Your task to perform on an android device: Open the calendar app, open the side menu, and click the "Day" option Image 0: 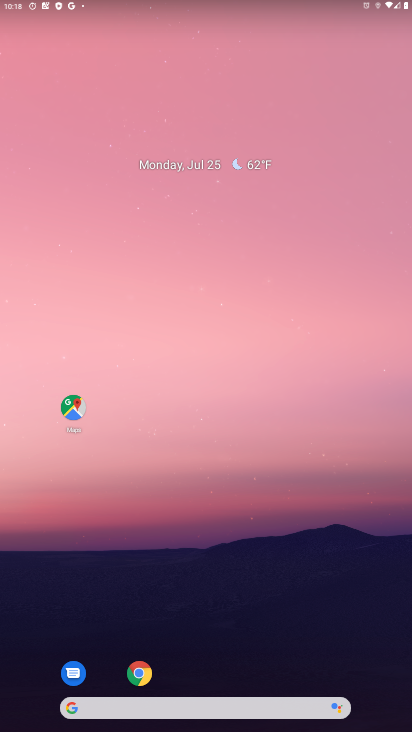
Step 0: drag from (187, 627) to (274, 57)
Your task to perform on an android device: Open the calendar app, open the side menu, and click the "Day" option Image 1: 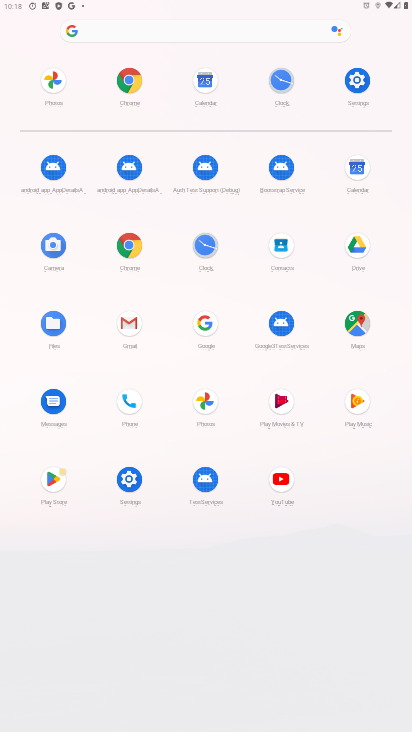
Step 1: click (353, 169)
Your task to perform on an android device: Open the calendar app, open the side menu, and click the "Day" option Image 2: 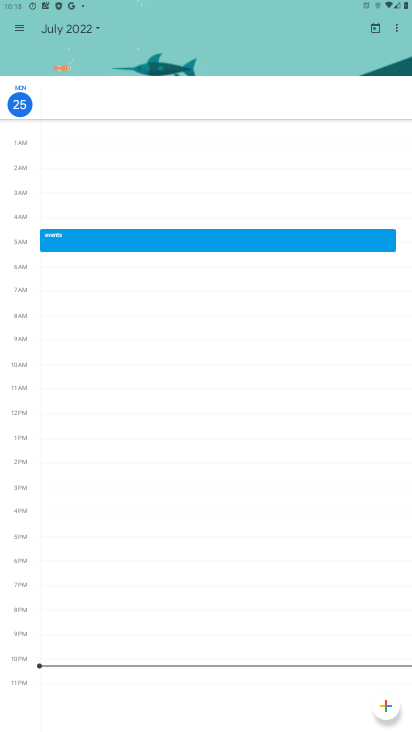
Step 2: click (72, 29)
Your task to perform on an android device: Open the calendar app, open the side menu, and click the "Day" option Image 3: 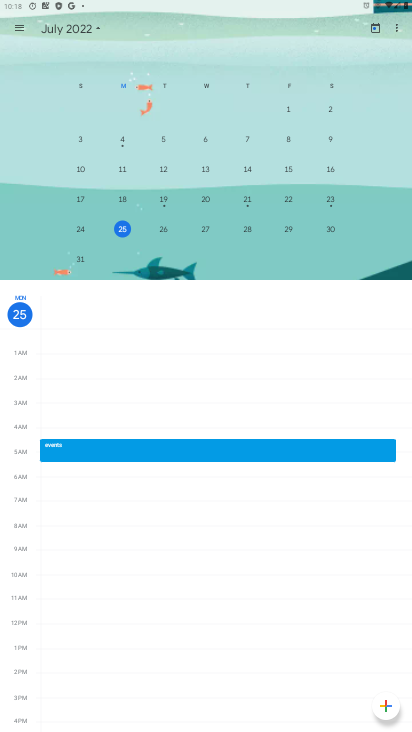
Step 3: click (26, 30)
Your task to perform on an android device: Open the calendar app, open the side menu, and click the "Day" option Image 4: 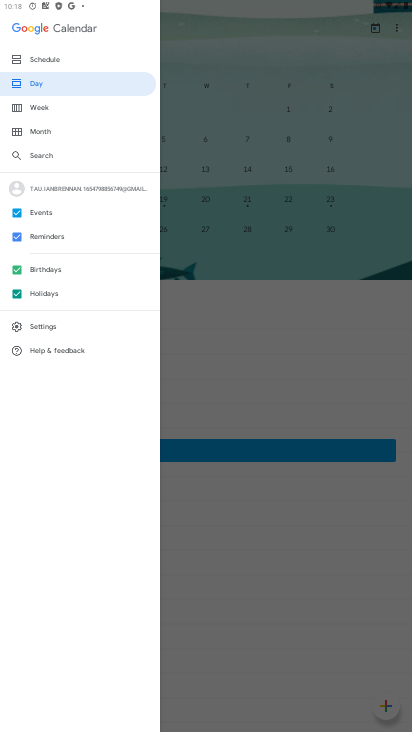
Step 4: click (52, 82)
Your task to perform on an android device: Open the calendar app, open the side menu, and click the "Day" option Image 5: 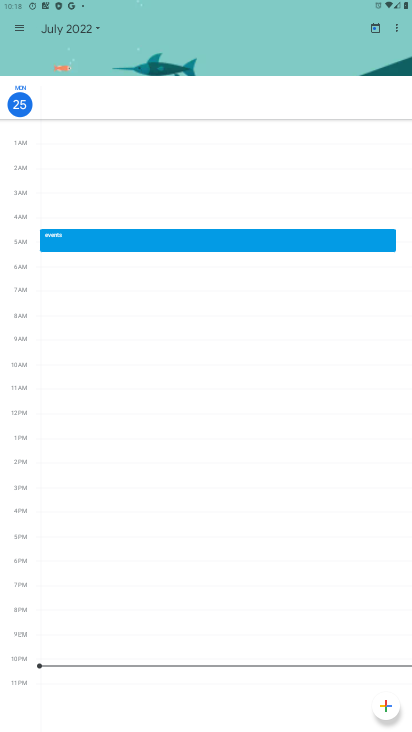
Step 5: task complete